Your task to perform on an android device: turn on the 24-hour format for clock Image 0: 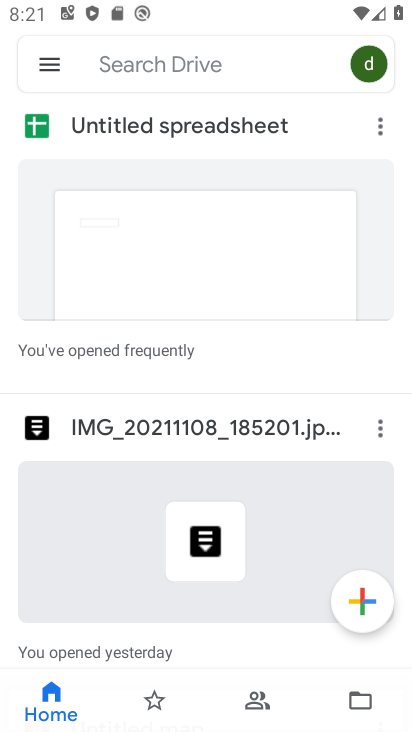
Step 0: press back button
Your task to perform on an android device: turn on the 24-hour format for clock Image 1: 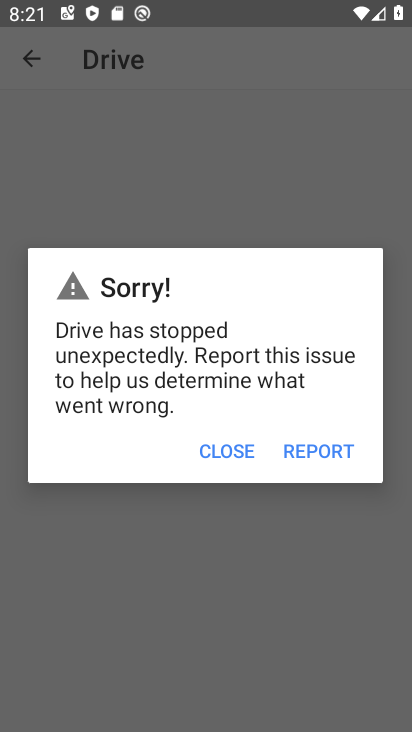
Step 1: press home button
Your task to perform on an android device: turn on the 24-hour format for clock Image 2: 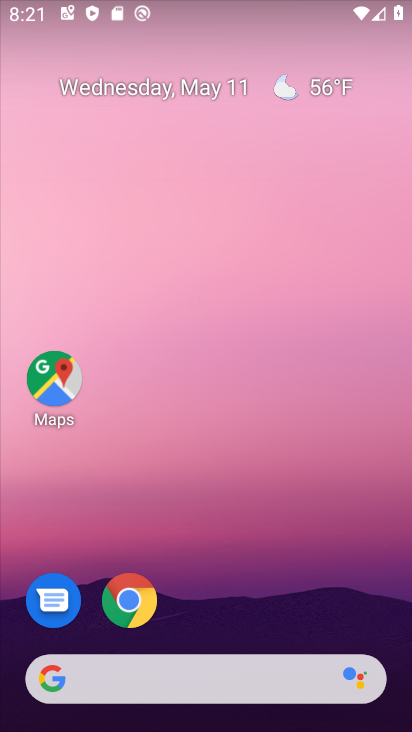
Step 2: drag from (255, 573) to (222, 59)
Your task to perform on an android device: turn on the 24-hour format for clock Image 3: 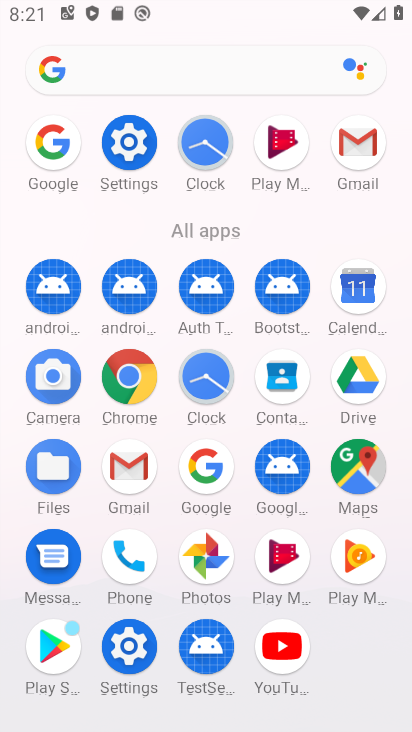
Step 3: click (205, 142)
Your task to perform on an android device: turn on the 24-hour format for clock Image 4: 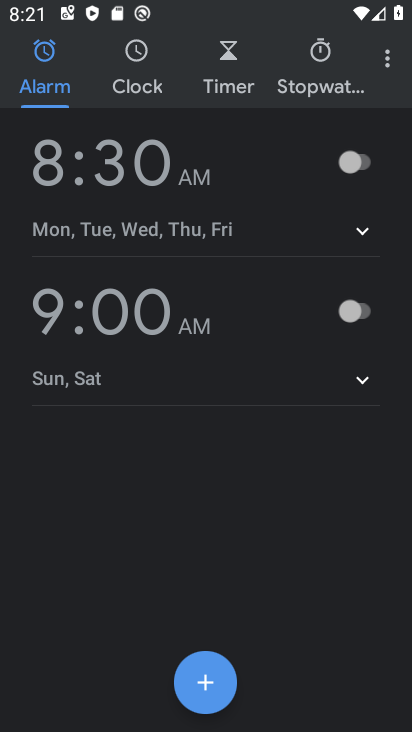
Step 4: click (387, 57)
Your task to perform on an android device: turn on the 24-hour format for clock Image 5: 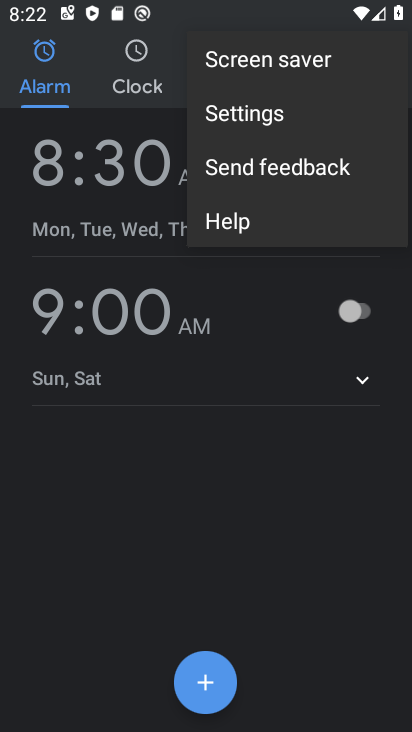
Step 5: click (226, 111)
Your task to perform on an android device: turn on the 24-hour format for clock Image 6: 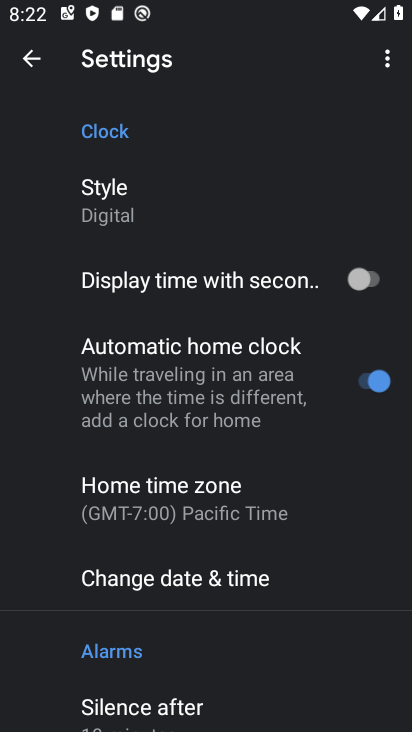
Step 6: click (179, 581)
Your task to perform on an android device: turn on the 24-hour format for clock Image 7: 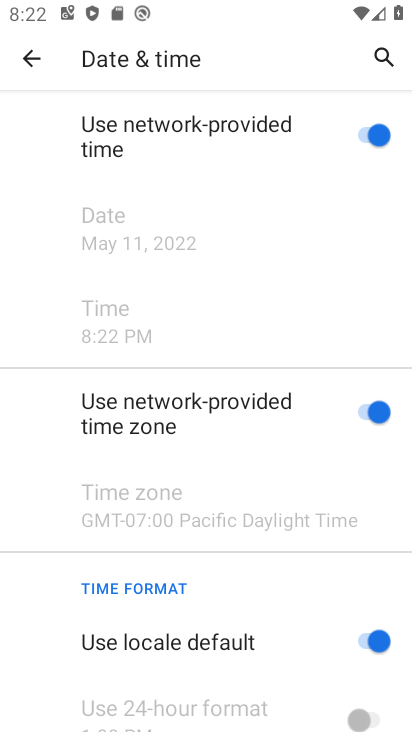
Step 7: drag from (214, 609) to (220, 443)
Your task to perform on an android device: turn on the 24-hour format for clock Image 8: 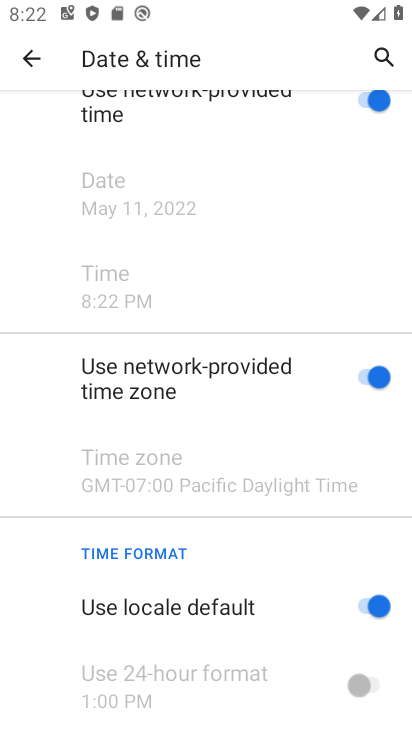
Step 8: click (379, 606)
Your task to perform on an android device: turn on the 24-hour format for clock Image 9: 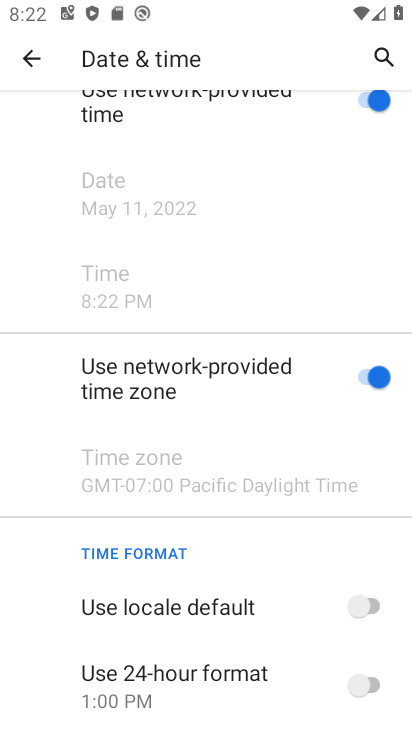
Step 9: click (362, 688)
Your task to perform on an android device: turn on the 24-hour format for clock Image 10: 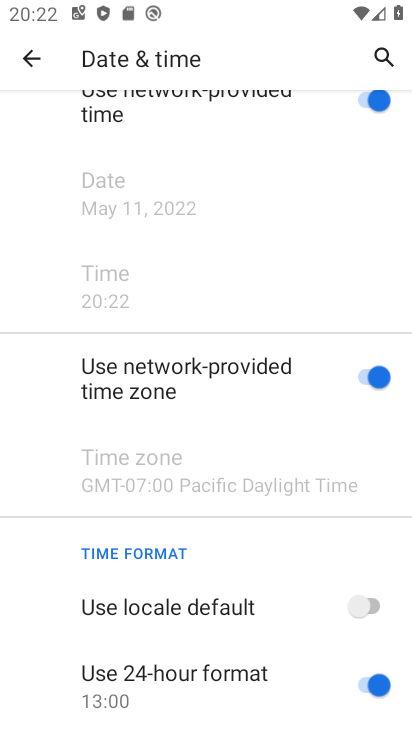
Step 10: task complete